Your task to perform on an android device: What's the weather going to be this weekend? Image 0: 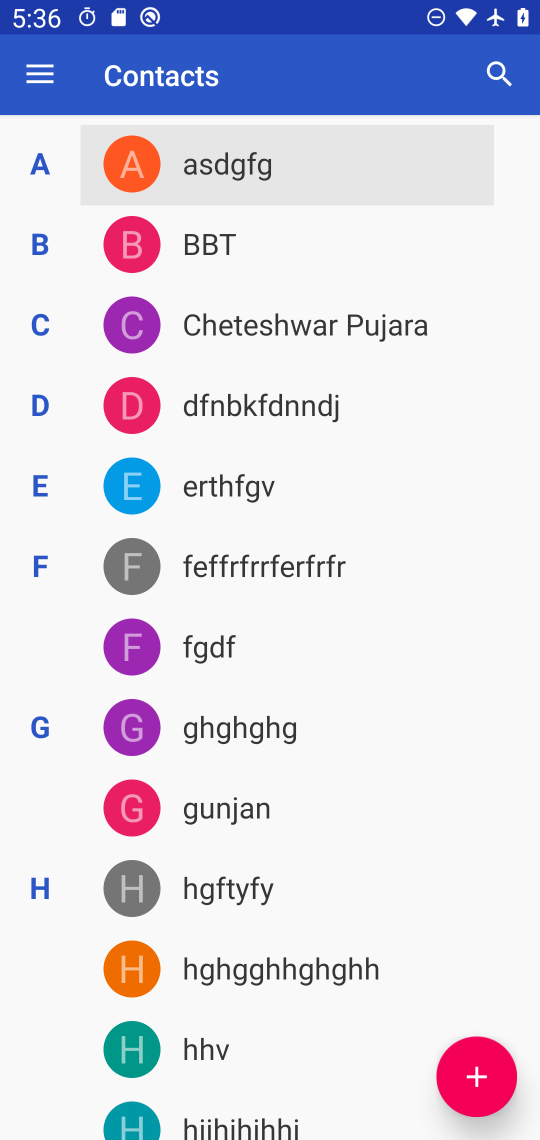
Step 0: press home button
Your task to perform on an android device: What's the weather going to be this weekend? Image 1: 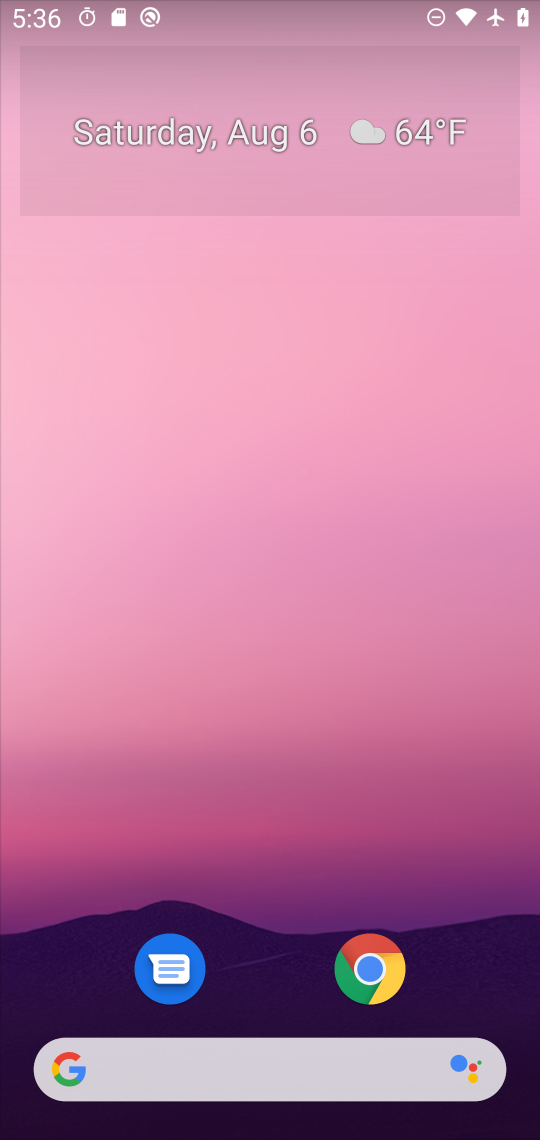
Step 1: drag from (299, 968) to (461, 292)
Your task to perform on an android device: What's the weather going to be this weekend? Image 2: 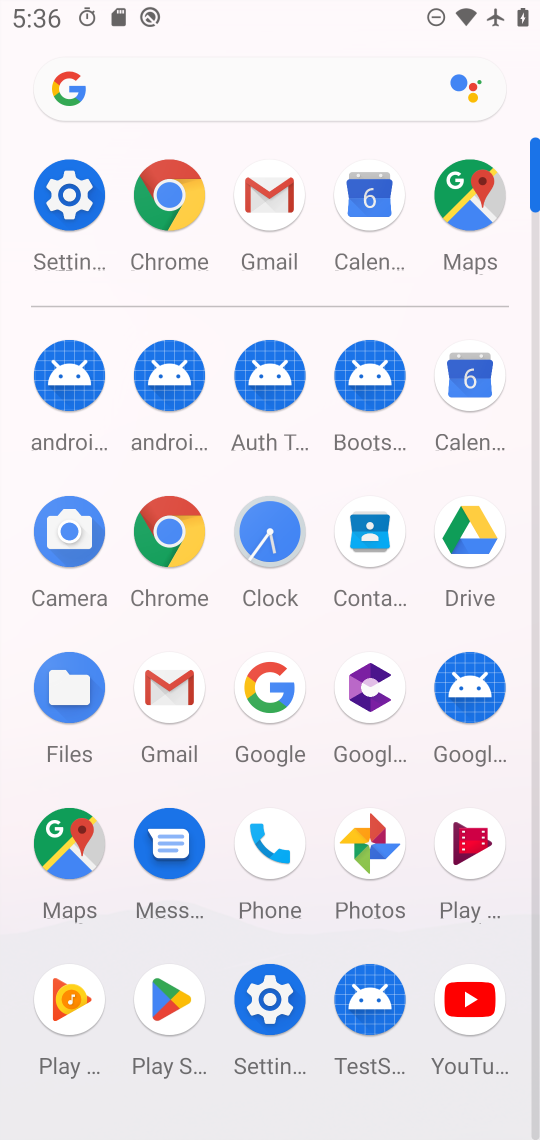
Step 2: click (264, 684)
Your task to perform on an android device: What's the weather going to be this weekend? Image 3: 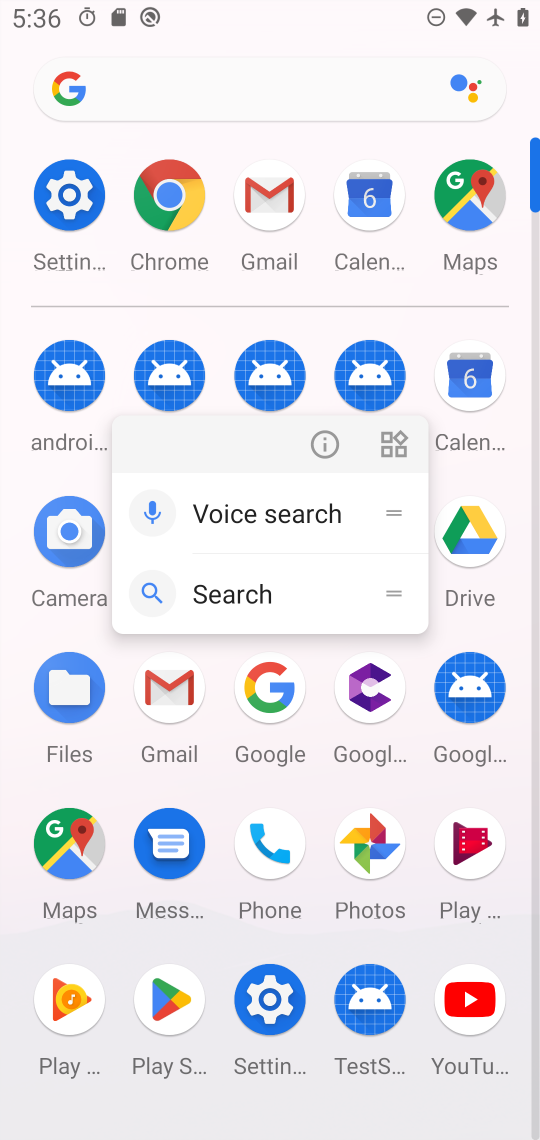
Step 3: click (264, 684)
Your task to perform on an android device: What's the weather going to be this weekend? Image 4: 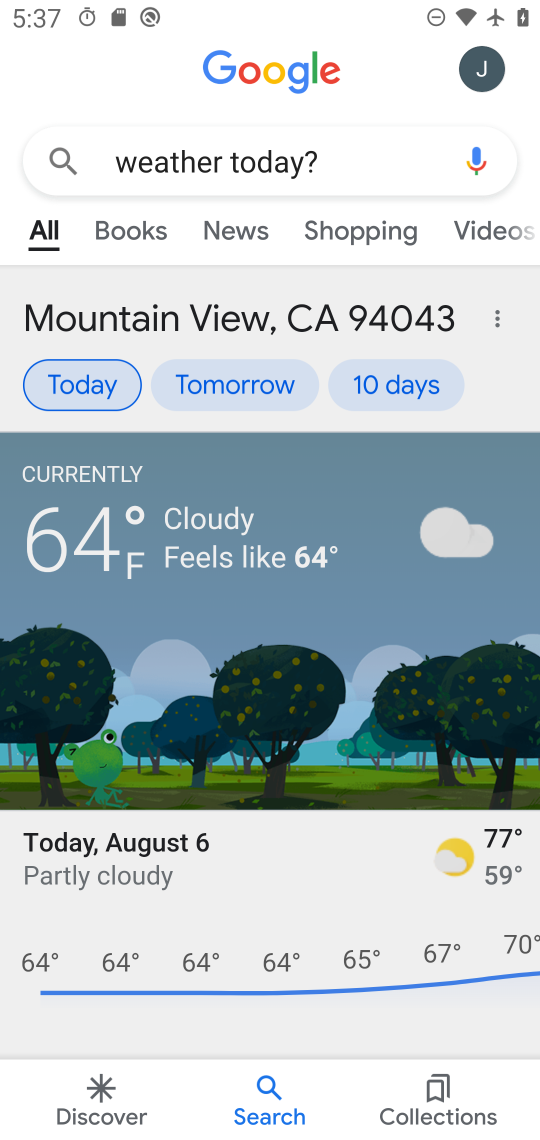
Step 4: click (325, 162)
Your task to perform on an android device: What's the weather going to be this weekend? Image 5: 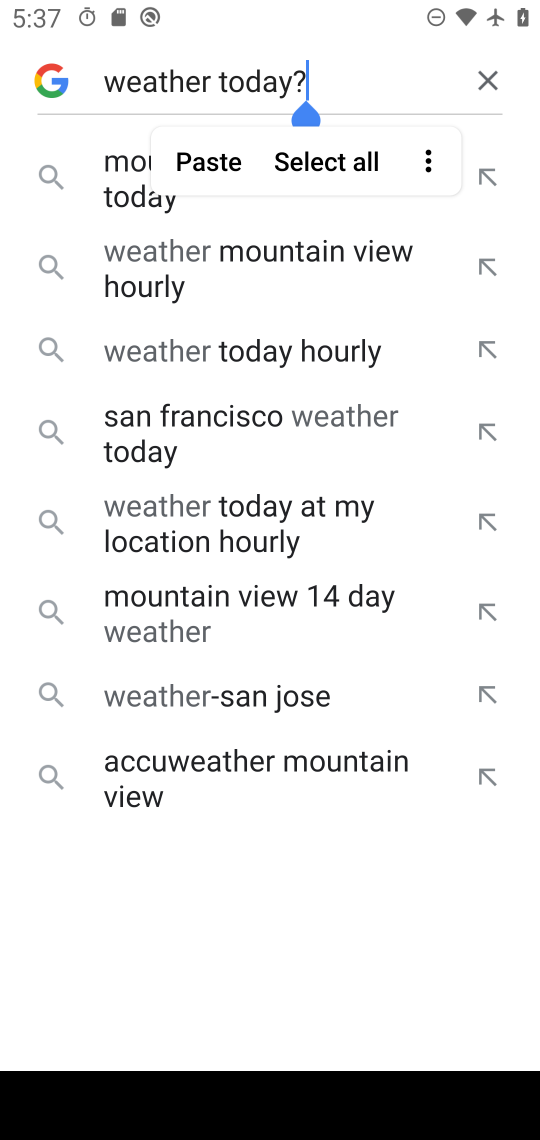
Step 5: click (487, 82)
Your task to perform on an android device: What's the weather going to be this weekend? Image 6: 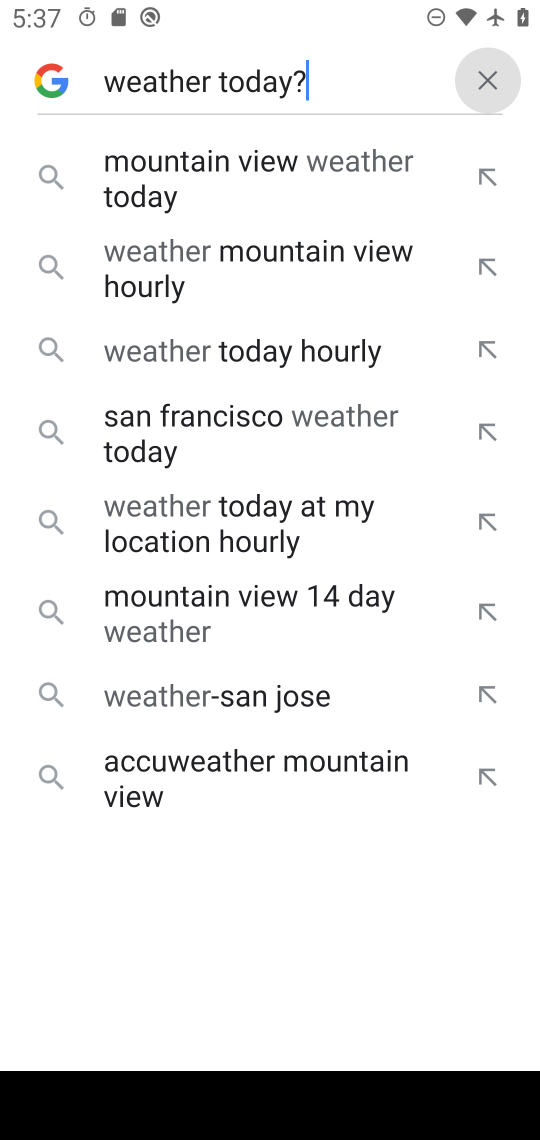
Step 6: click (487, 82)
Your task to perform on an android device: What's the weather going to be this weekend? Image 7: 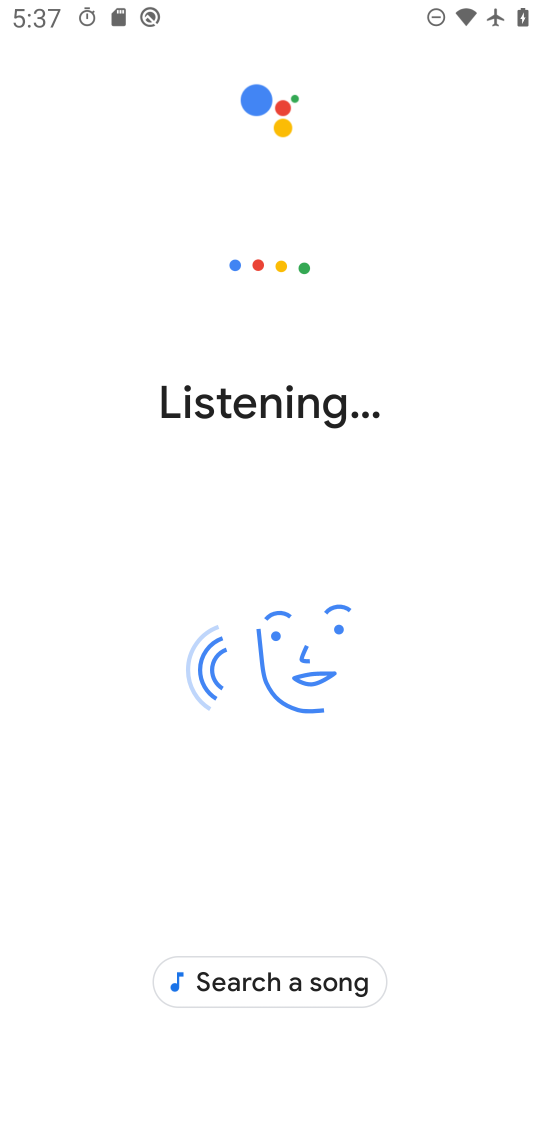
Step 7: type " weather going to be this weekend?"
Your task to perform on an android device: What's the weather going to be this weekend? Image 8: 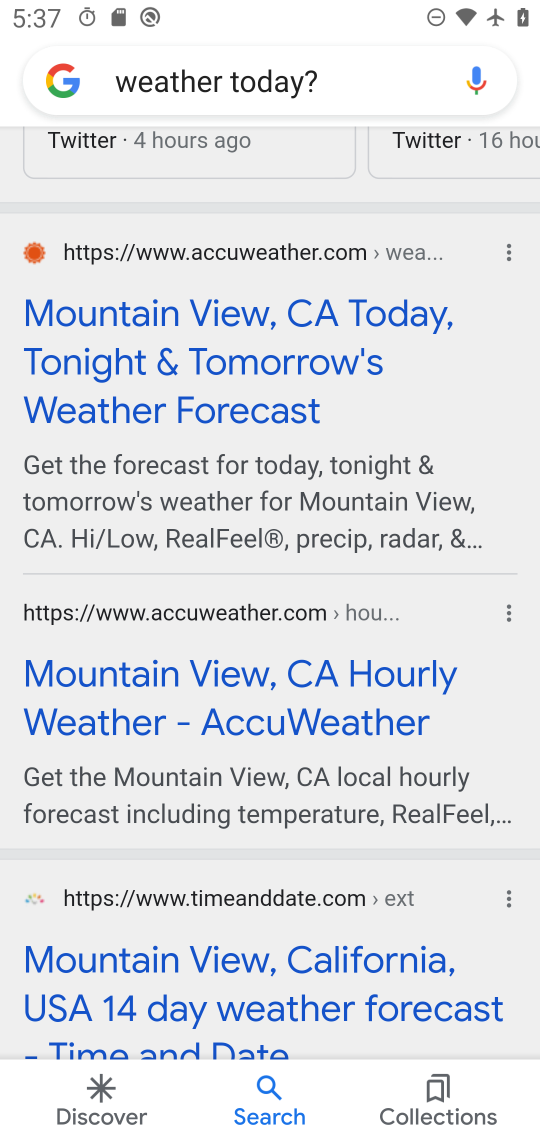
Step 8: press back button
Your task to perform on an android device: What's the weather going to be this weekend? Image 9: 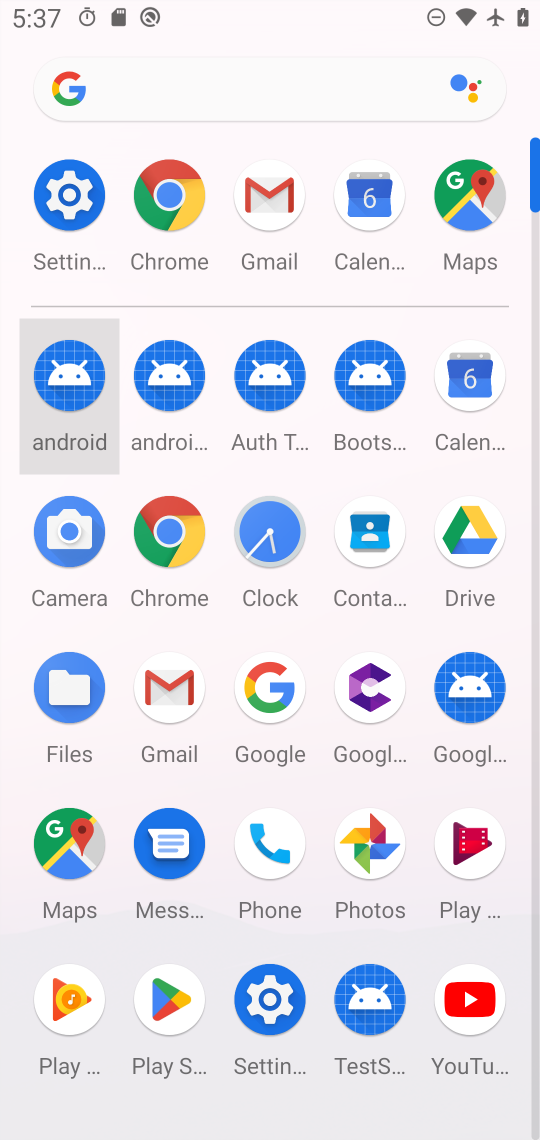
Step 9: click (293, 99)
Your task to perform on an android device: What's the weather going to be this weekend? Image 10: 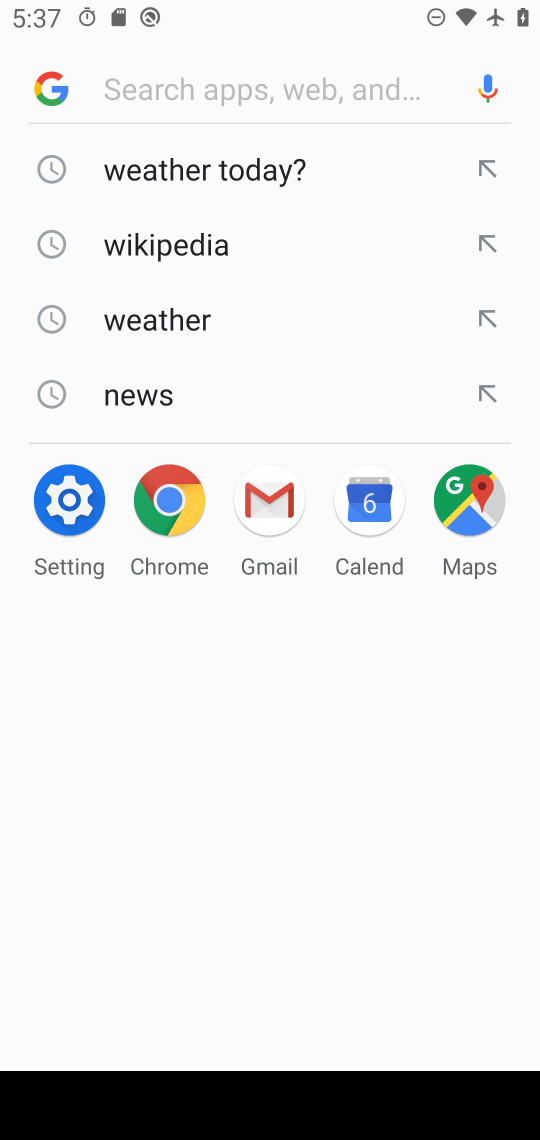
Step 10: type " weather going to be this weekend?"
Your task to perform on an android device: What's the weather going to be this weekend? Image 11: 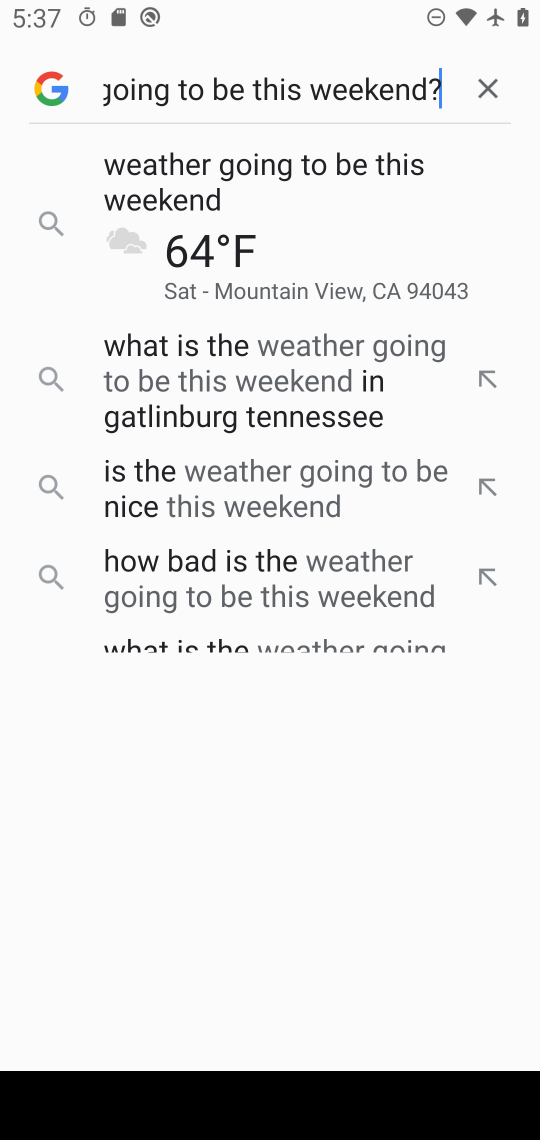
Step 11: press enter
Your task to perform on an android device: What's the weather going to be this weekend? Image 12: 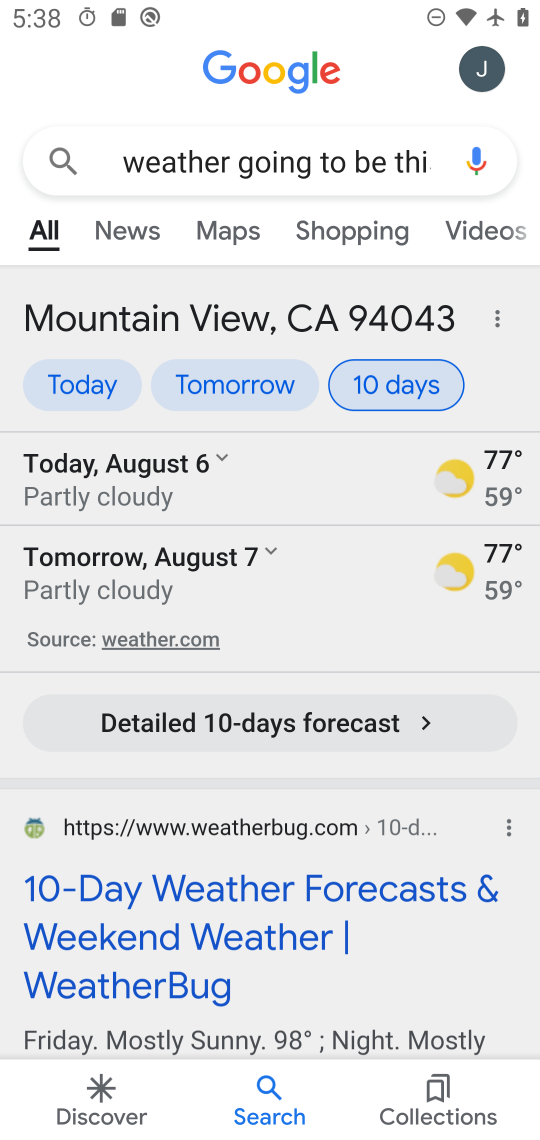
Step 12: task complete